Your task to perform on an android device: turn off sleep mode Image 0: 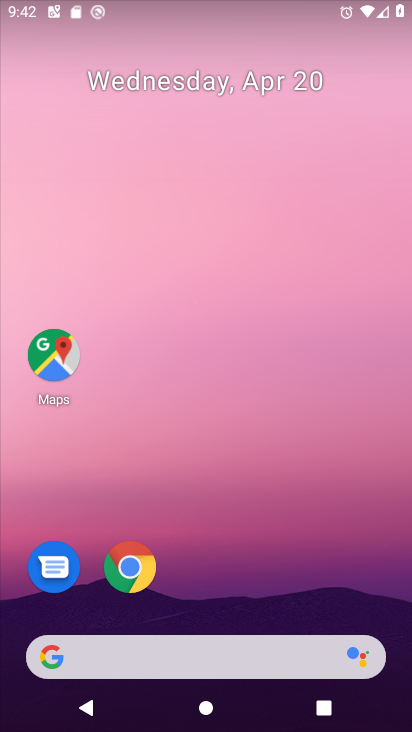
Step 0: drag from (335, 590) to (361, 221)
Your task to perform on an android device: turn off sleep mode Image 1: 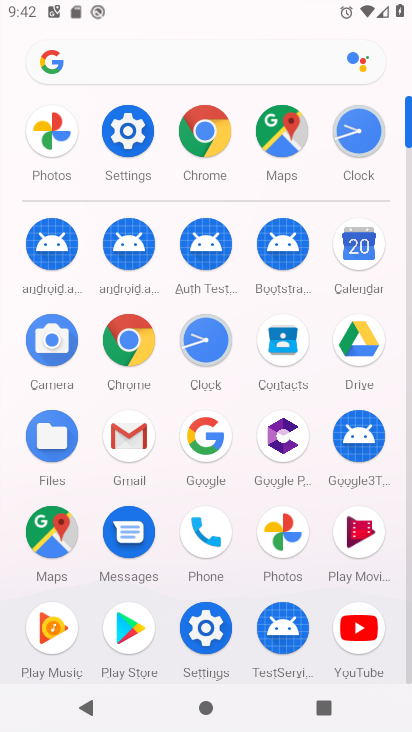
Step 1: click (122, 139)
Your task to perform on an android device: turn off sleep mode Image 2: 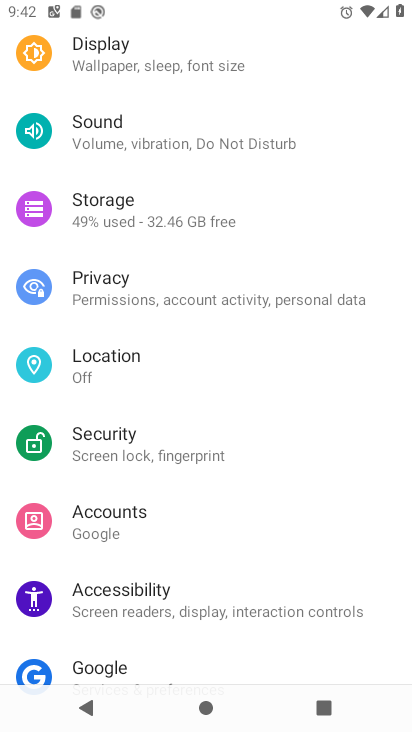
Step 2: drag from (321, 521) to (318, 332)
Your task to perform on an android device: turn off sleep mode Image 3: 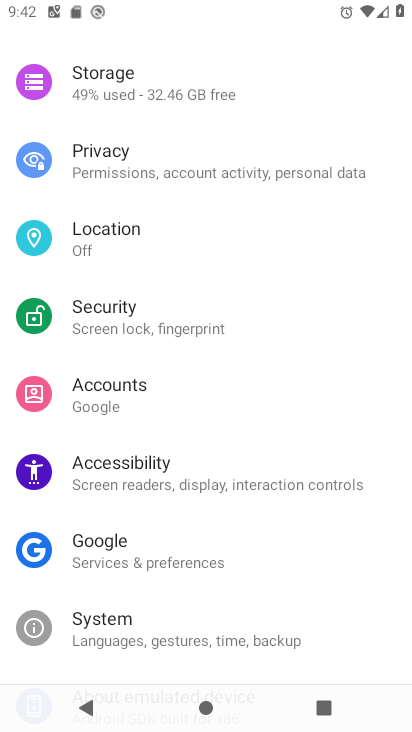
Step 3: drag from (337, 302) to (337, 416)
Your task to perform on an android device: turn off sleep mode Image 4: 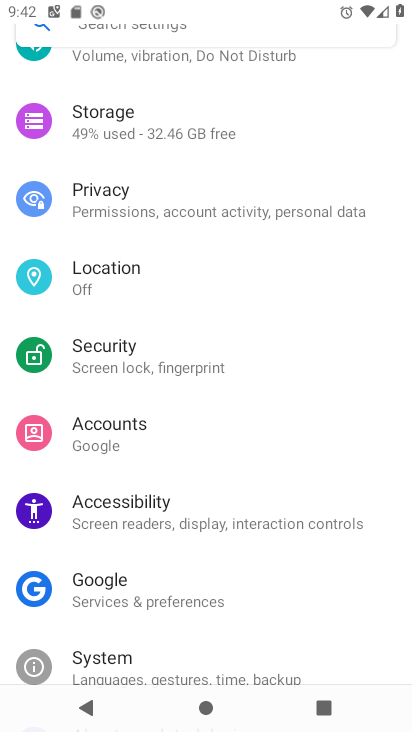
Step 4: drag from (338, 291) to (348, 424)
Your task to perform on an android device: turn off sleep mode Image 5: 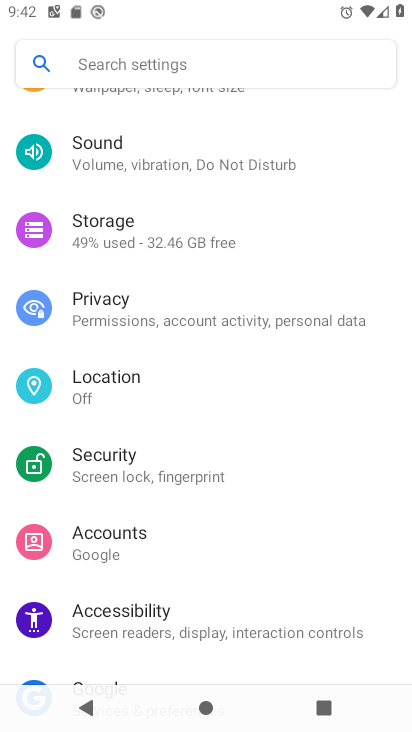
Step 5: drag from (361, 223) to (334, 424)
Your task to perform on an android device: turn off sleep mode Image 6: 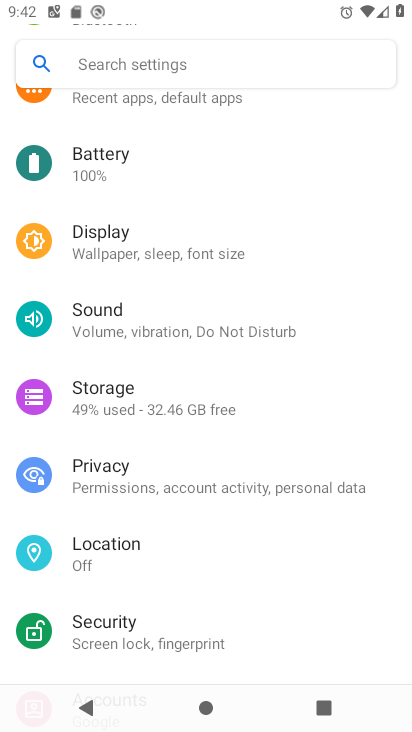
Step 6: drag from (342, 239) to (344, 407)
Your task to perform on an android device: turn off sleep mode Image 7: 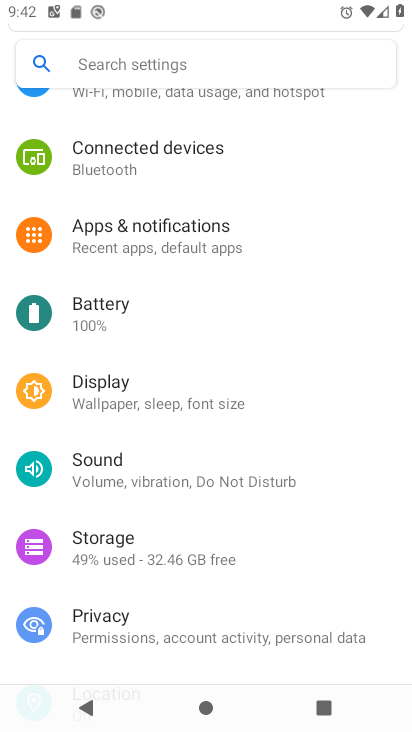
Step 7: click (166, 398)
Your task to perform on an android device: turn off sleep mode Image 8: 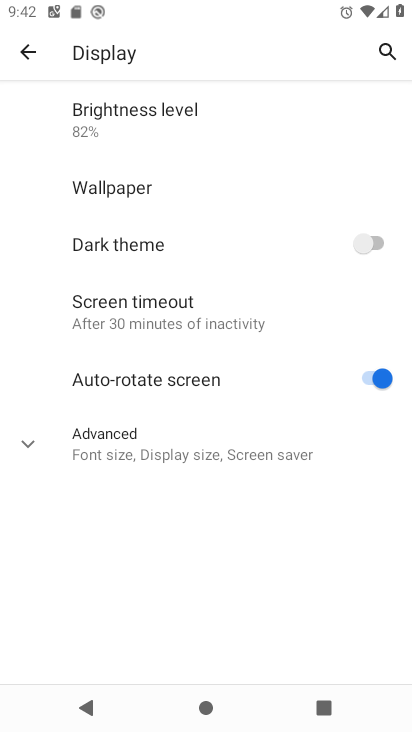
Step 8: click (162, 394)
Your task to perform on an android device: turn off sleep mode Image 9: 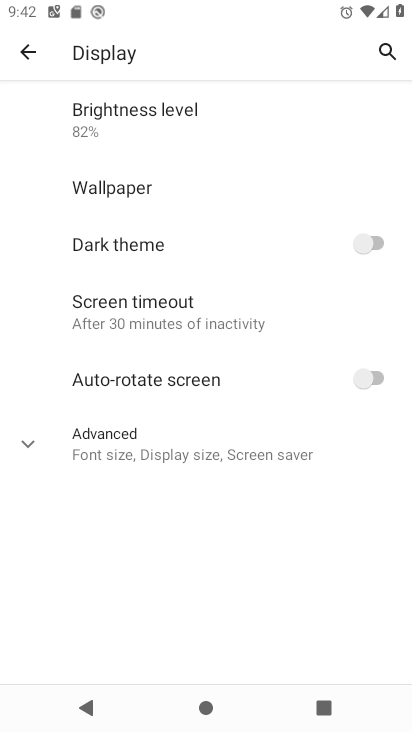
Step 9: click (226, 440)
Your task to perform on an android device: turn off sleep mode Image 10: 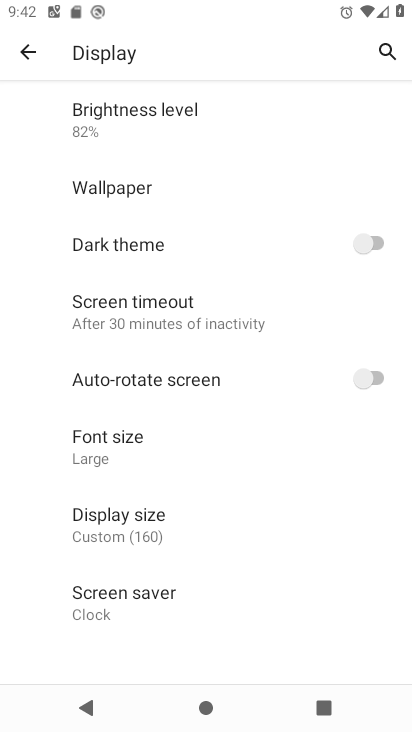
Step 10: task complete